Your task to perform on an android device: Go to calendar. Show me events next week Image 0: 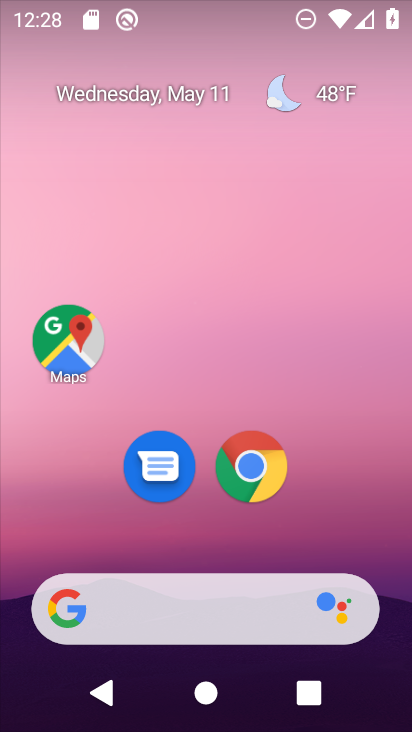
Step 0: drag from (214, 541) to (226, 42)
Your task to perform on an android device: Go to calendar. Show me events next week Image 1: 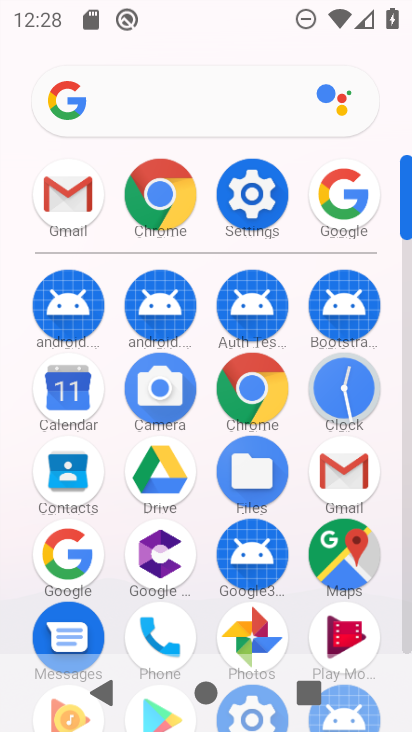
Step 1: click (66, 383)
Your task to perform on an android device: Go to calendar. Show me events next week Image 2: 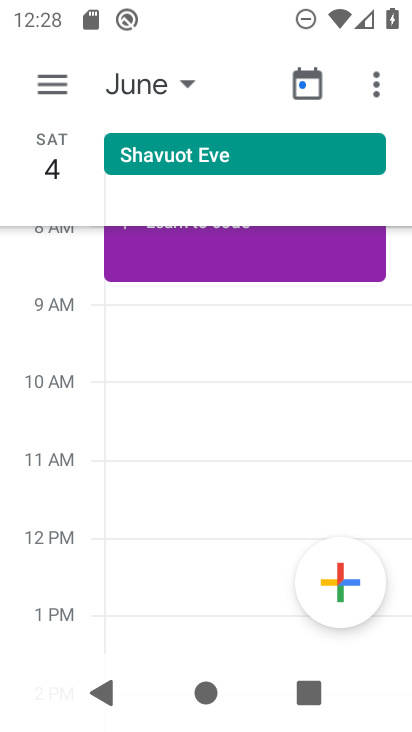
Step 2: click (60, 75)
Your task to perform on an android device: Go to calendar. Show me events next week Image 3: 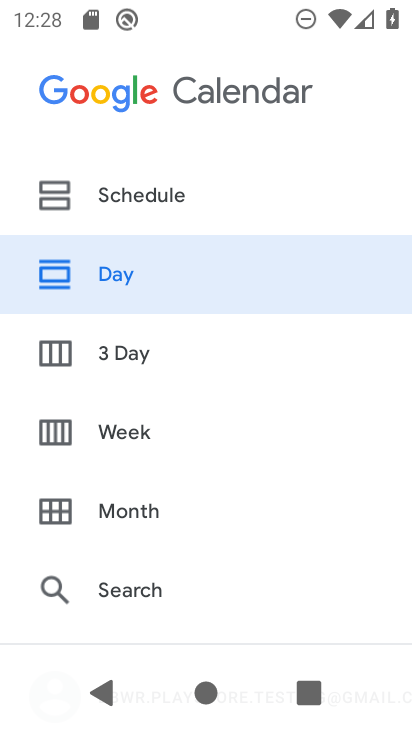
Step 3: click (101, 426)
Your task to perform on an android device: Go to calendar. Show me events next week Image 4: 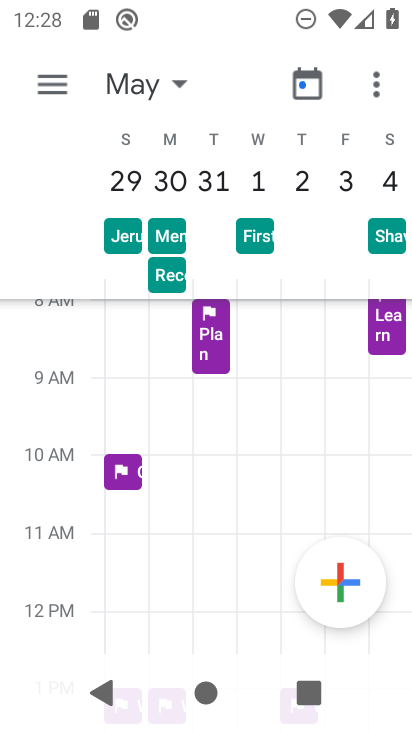
Step 4: drag from (134, 170) to (390, 183)
Your task to perform on an android device: Go to calendar. Show me events next week Image 5: 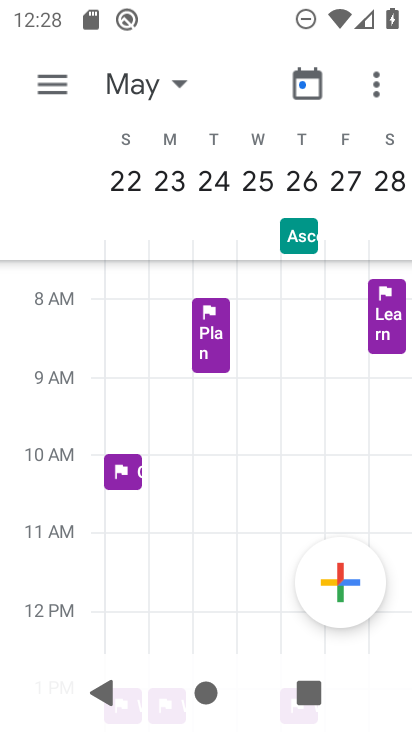
Step 5: drag from (123, 182) to (405, 180)
Your task to perform on an android device: Go to calendar. Show me events next week Image 6: 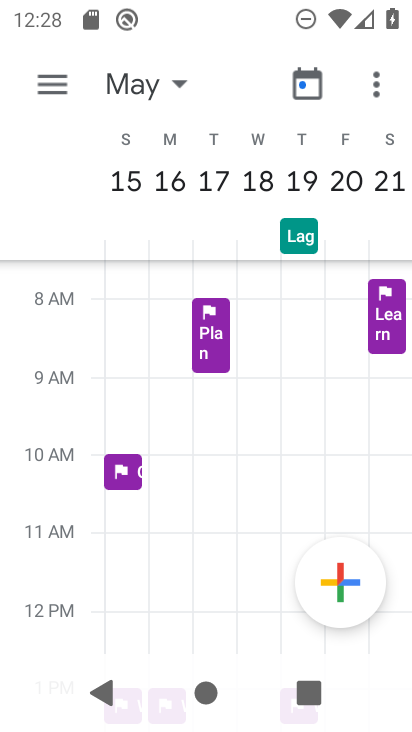
Step 6: drag from (126, 178) to (411, 183)
Your task to perform on an android device: Go to calendar. Show me events next week Image 7: 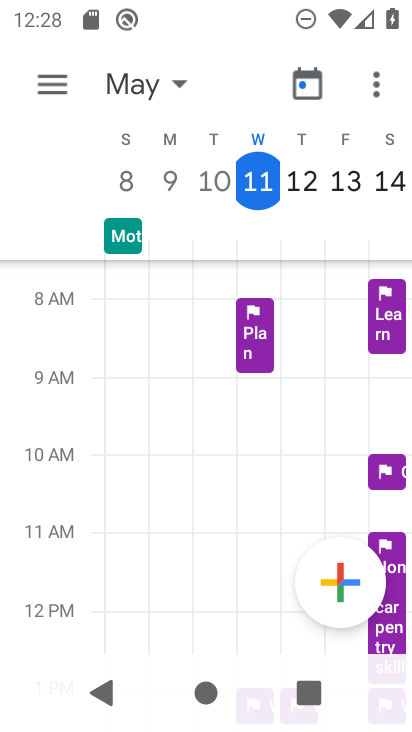
Step 7: drag from (393, 184) to (95, 193)
Your task to perform on an android device: Go to calendar. Show me events next week Image 8: 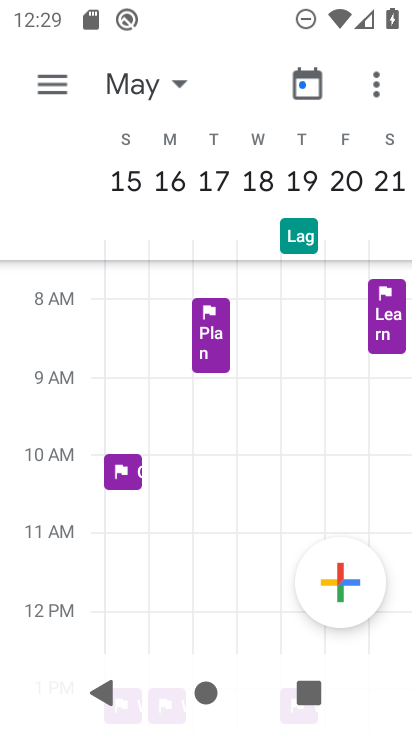
Step 8: click (125, 187)
Your task to perform on an android device: Go to calendar. Show me events next week Image 9: 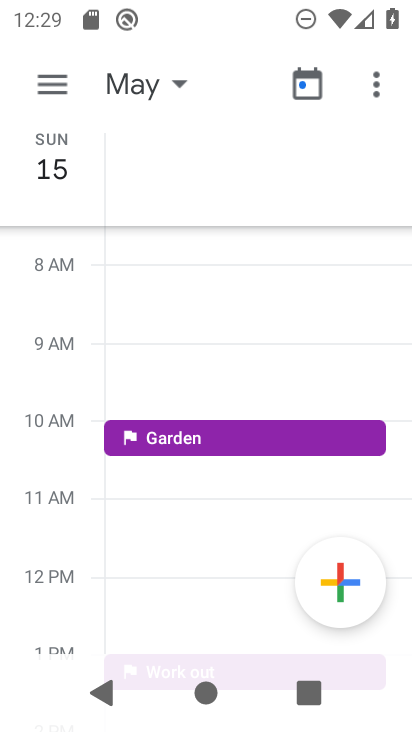
Step 9: click (76, 167)
Your task to perform on an android device: Go to calendar. Show me events next week Image 10: 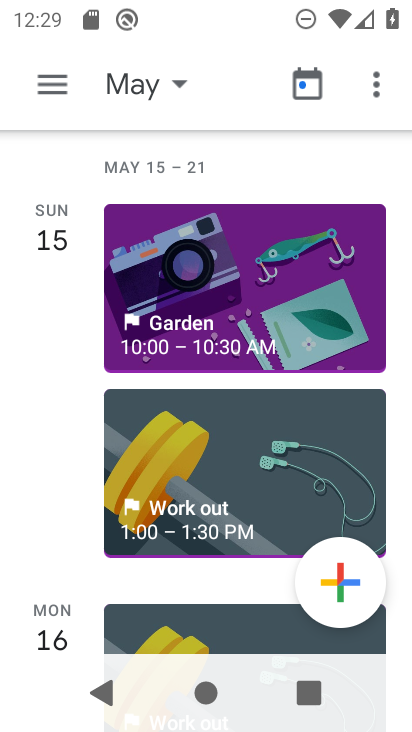
Step 10: click (53, 77)
Your task to perform on an android device: Go to calendar. Show me events next week Image 11: 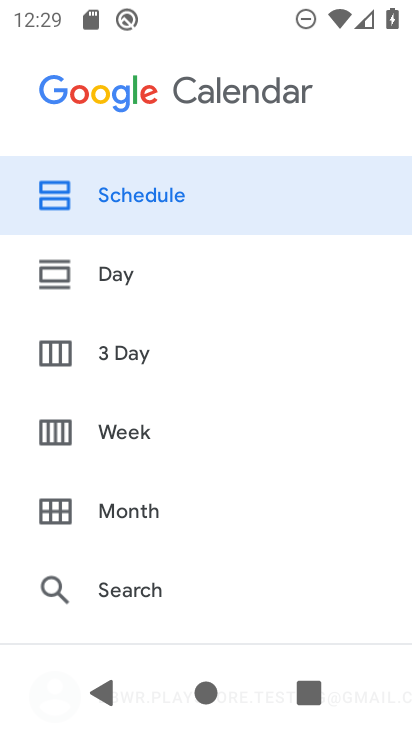
Step 11: drag from (94, 582) to (100, 176)
Your task to perform on an android device: Go to calendar. Show me events next week Image 12: 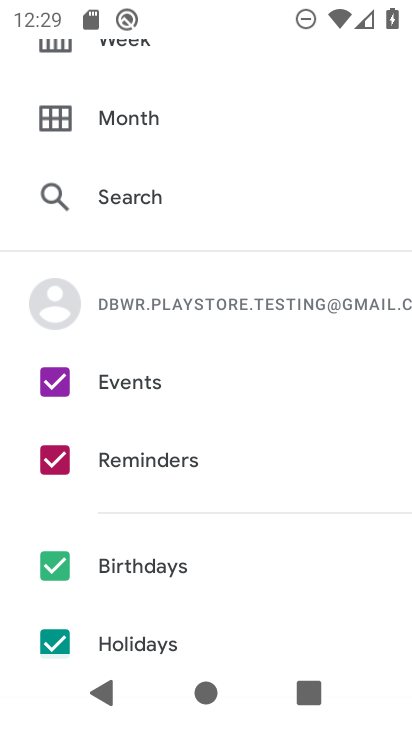
Step 12: click (64, 565)
Your task to perform on an android device: Go to calendar. Show me events next week Image 13: 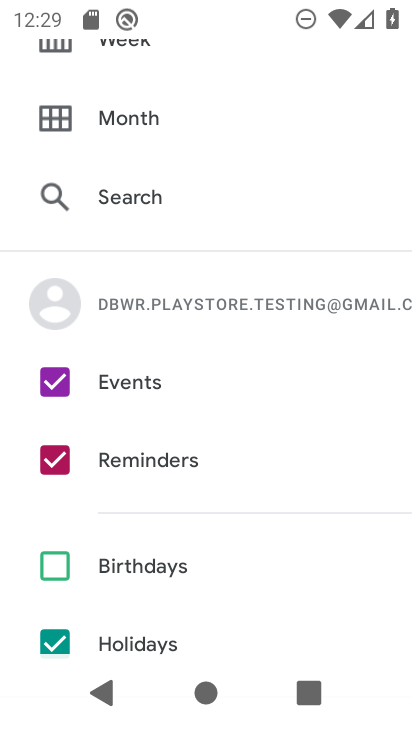
Step 13: click (48, 639)
Your task to perform on an android device: Go to calendar. Show me events next week Image 14: 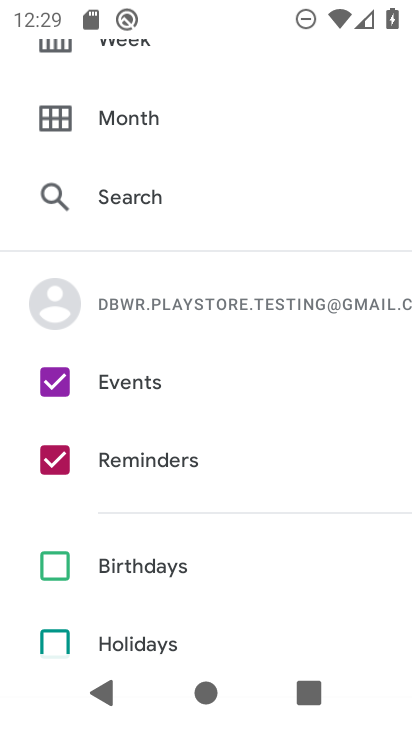
Step 14: click (59, 457)
Your task to perform on an android device: Go to calendar. Show me events next week Image 15: 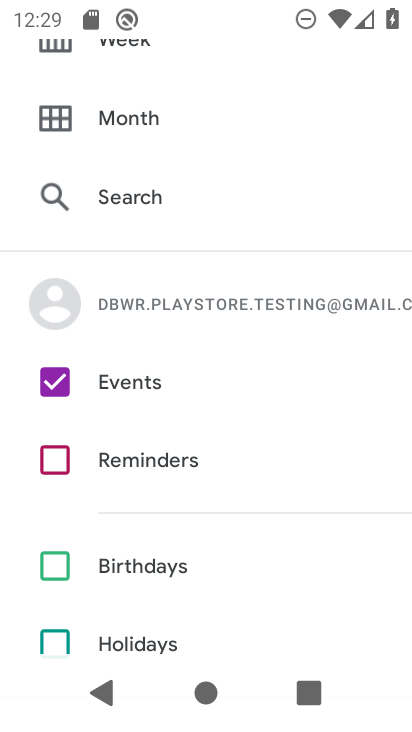
Step 15: drag from (139, 214) to (121, 639)
Your task to perform on an android device: Go to calendar. Show me events next week Image 16: 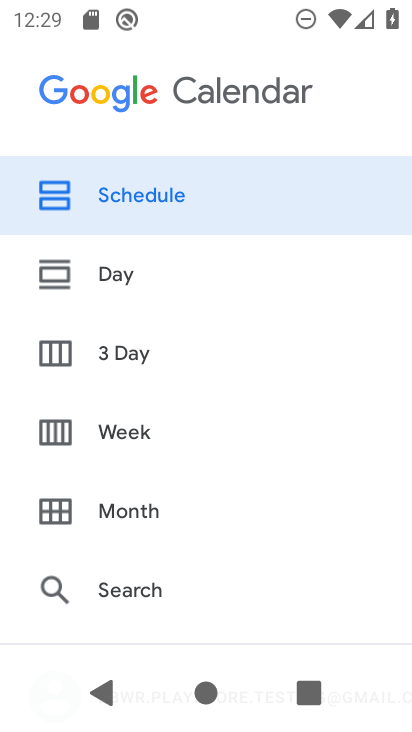
Step 16: click (56, 200)
Your task to perform on an android device: Go to calendar. Show me events next week Image 17: 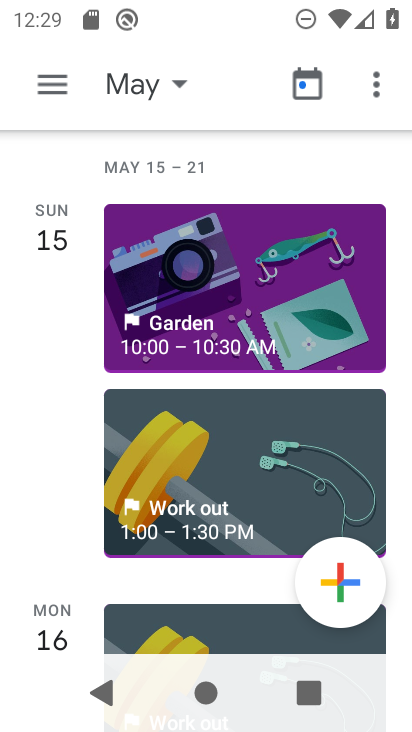
Step 17: task complete